Your task to perform on an android device: change the clock display to show seconds Image 0: 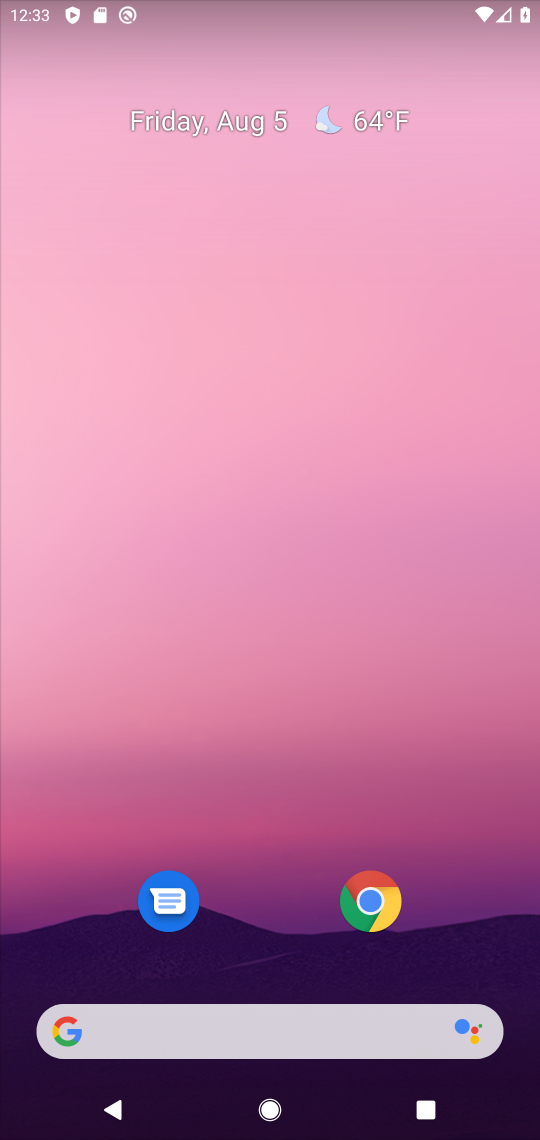
Step 0: drag from (108, 763) to (153, 208)
Your task to perform on an android device: change the clock display to show seconds Image 1: 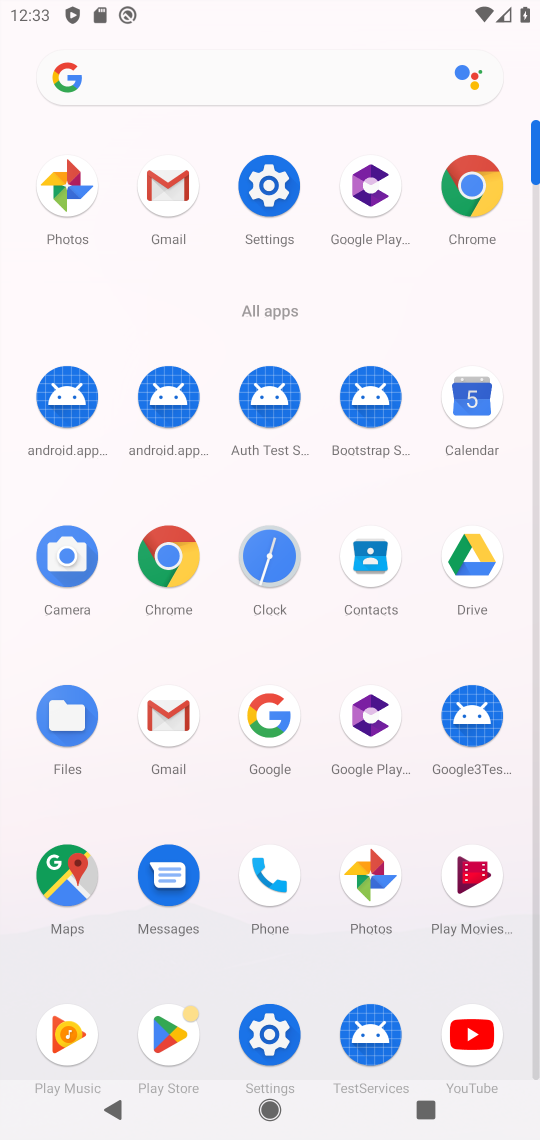
Step 1: click (269, 566)
Your task to perform on an android device: change the clock display to show seconds Image 2: 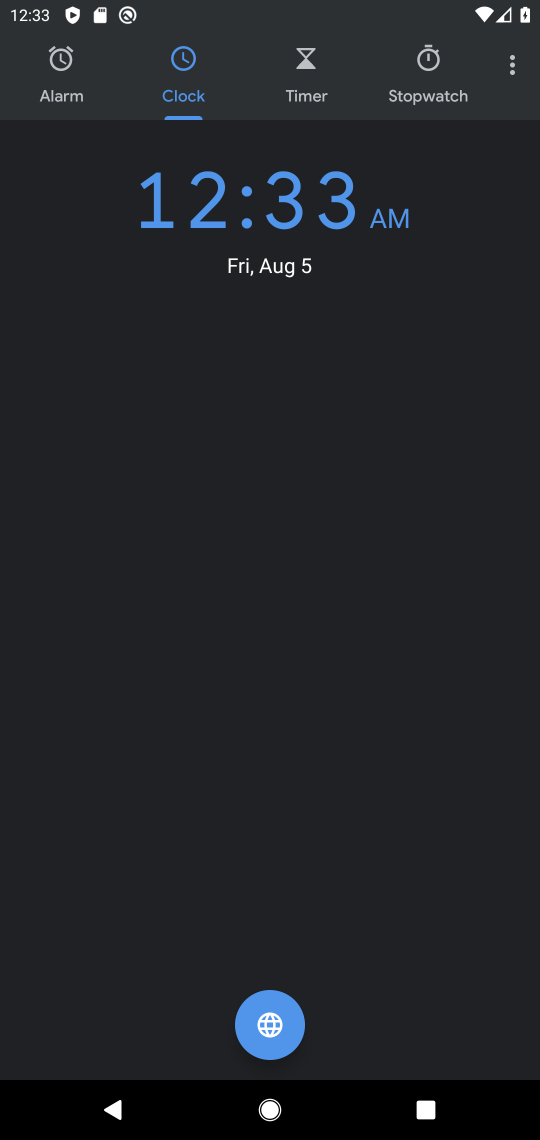
Step 2: click (507, 72)
Your task to perform on an android device: change the clock display to show seconds Image 3: 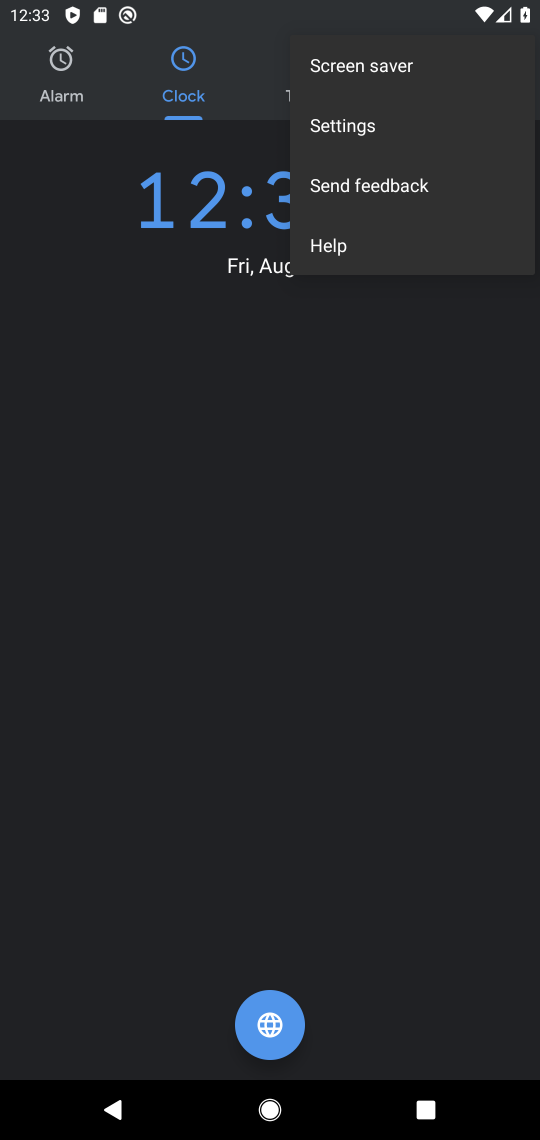
Step 3: click (357, 133)
Your task to perform on an android device: change the clock display to show seconds Image 4: 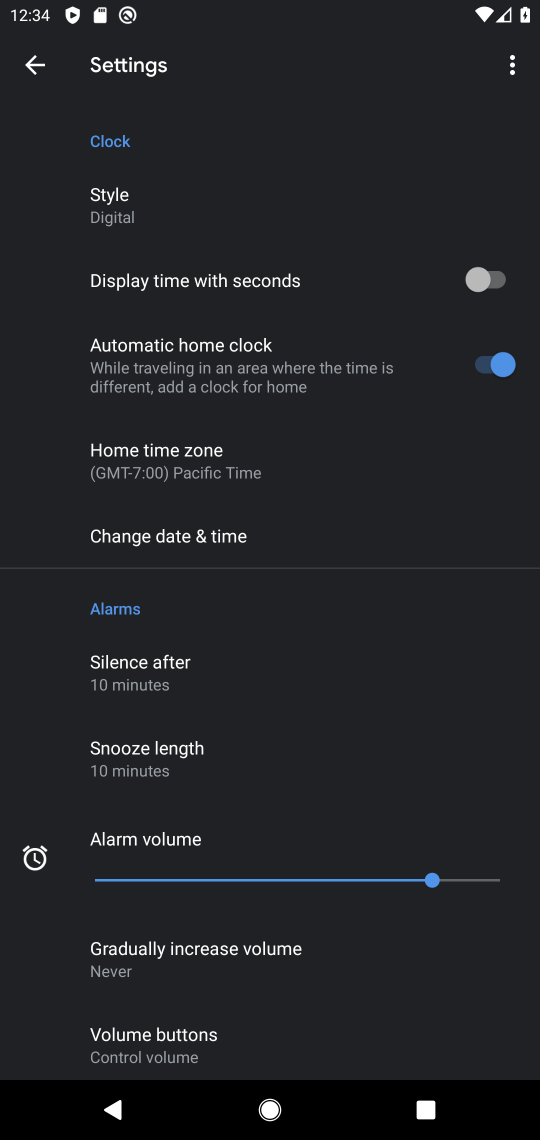
Step 4: click (477, 286)
Your task to perform on an android device: change the clock display to show seconds Image 5: 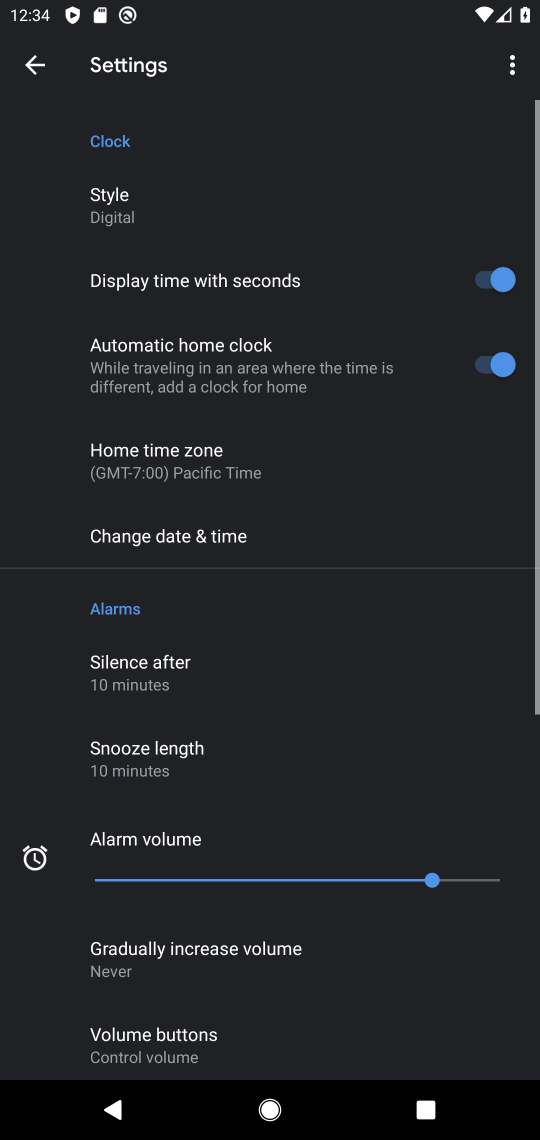
Step 5: task complete